Your task to perform on an android device: Go to accessibility settings Image 0: 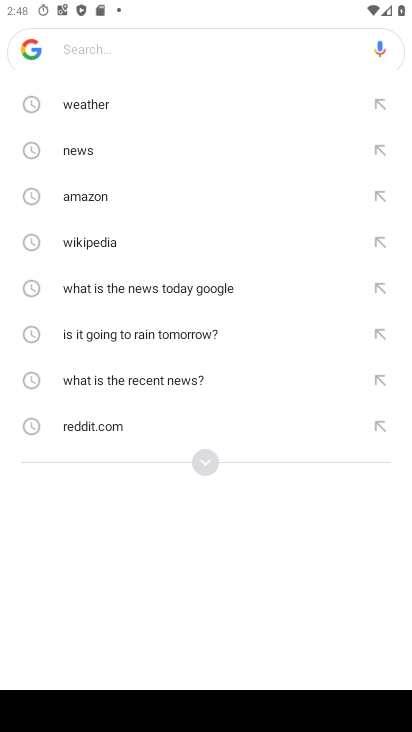
Step 0: press home button
Your task to perform on an android device: Go to accessibility settings Image 1: 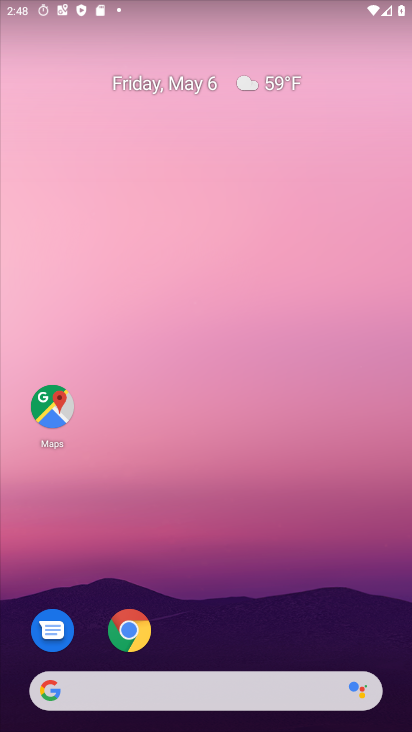
Step 1: drag from (252, 626) to (250, 90)
Your task to perform on an android device: Go to accessibility settings Image 2: 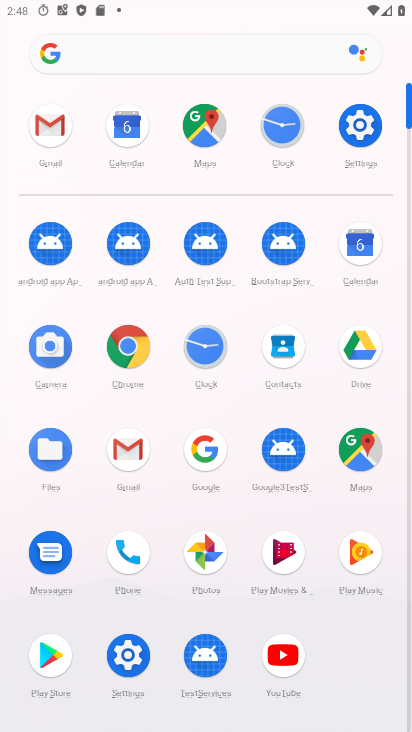
Step 2: click (354, 139)
Your task to perform on an android device: Go to accessibility settings Image 3: 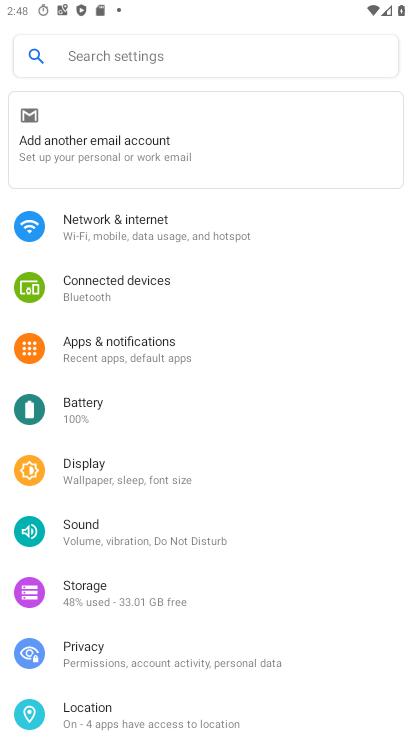
Step 3: drag from (220, 624) to (216, 267)
Your task to perform on an android device: Go to accessibility settings Image 4: 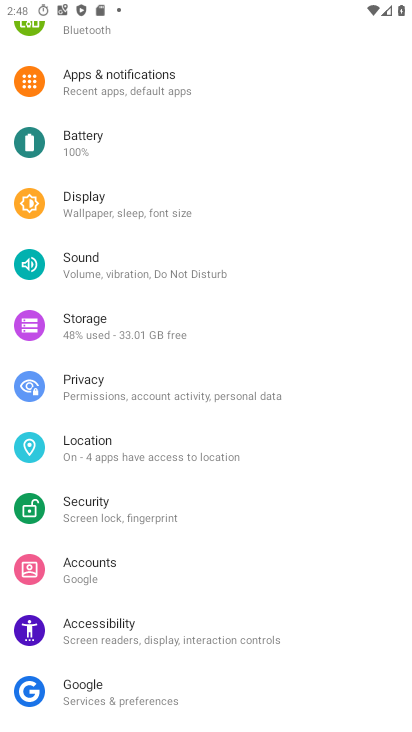
Step 4: click (122, 632)
Your task to perform on an android device: Go to accessibility settings Image 5: 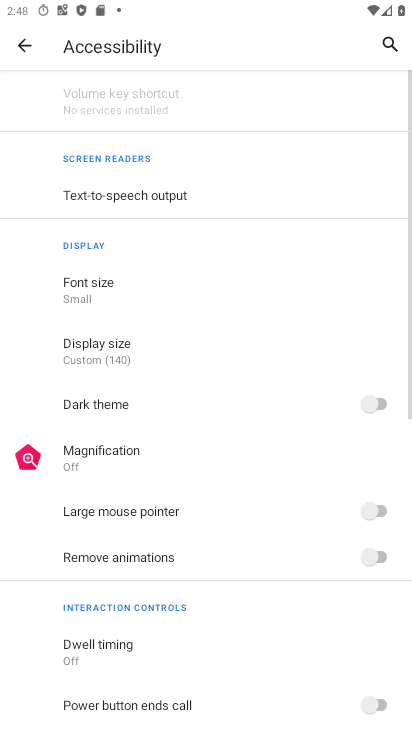
Step 5: task complete